Your task to perform on an android device: Add "usb-a to usb-b" to the cart on costco Image 0: 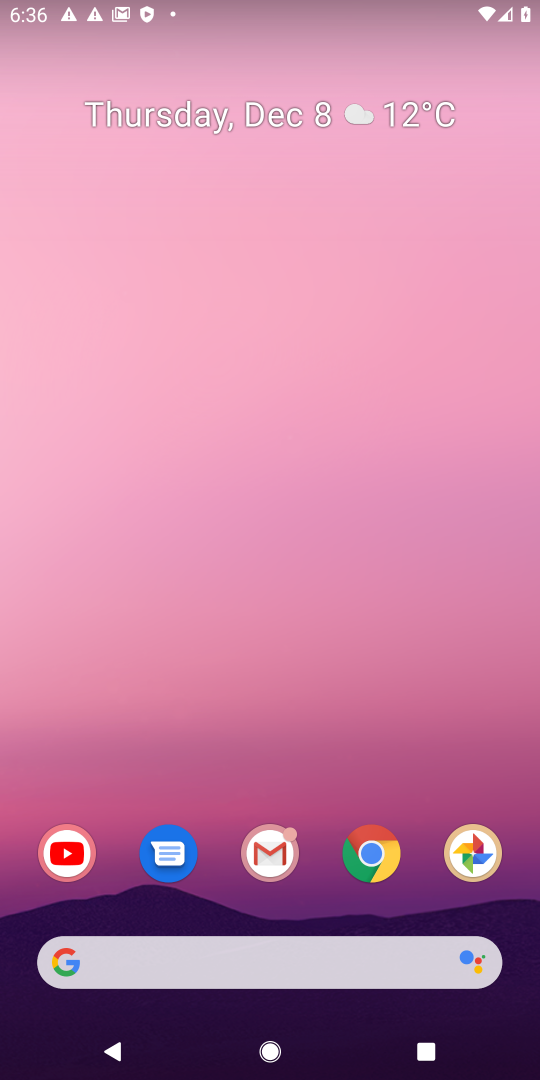
Step 0: click (185, 965)
Your task to perform on an android device: Add "usb-a to usb-b" to the cart on costco Image 1: 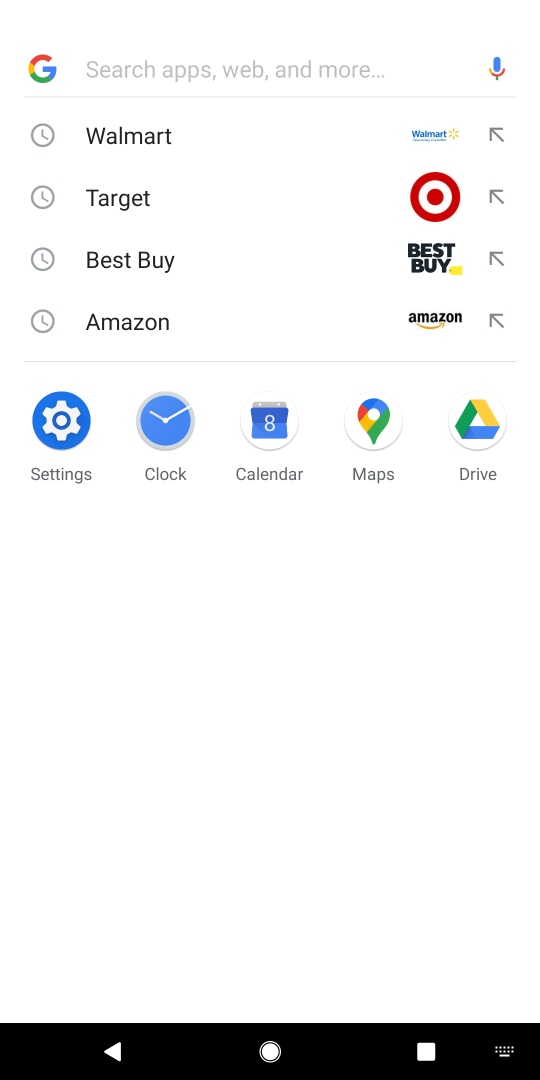
Step 1: click (126, 328)
Your task to perform on an android device: Add "usb-a to usb-b" to the cart on costco Image 2: 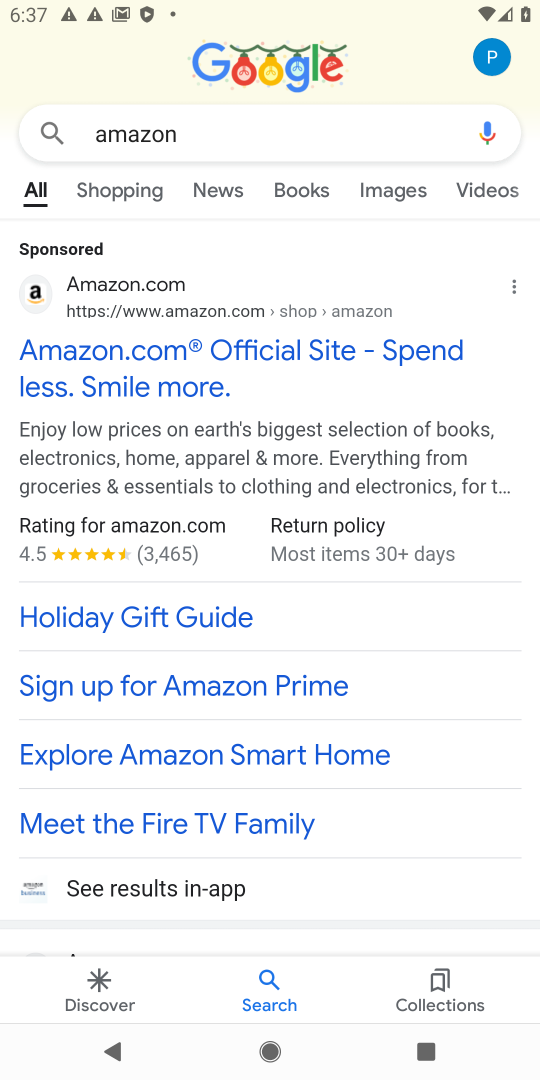
Step 2: click (186, 366)
Your task to perform on an android device: Add "usb-a to usb-b" to the cart on costco Image 3: 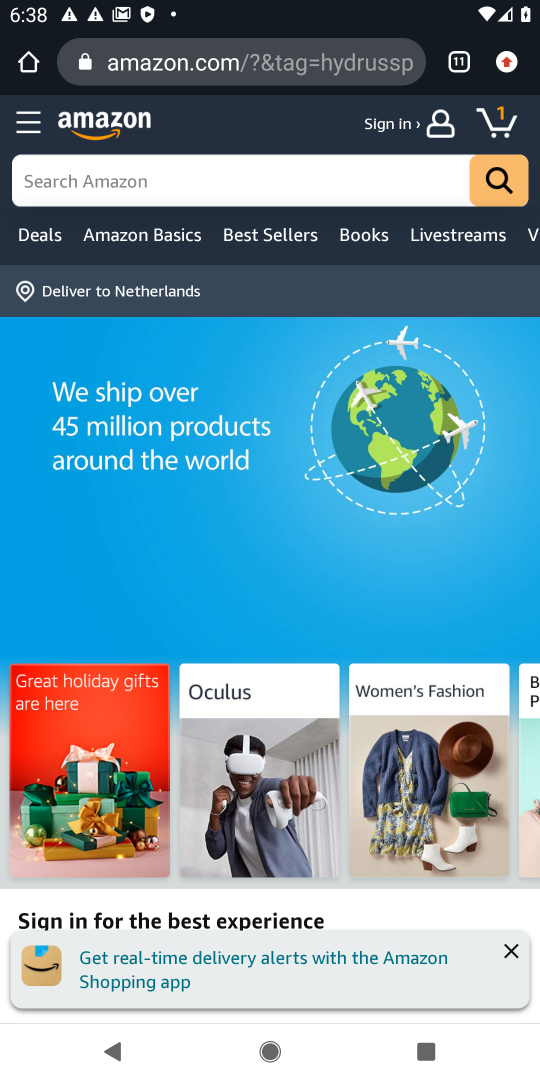
Step 3: click (239, 778)
Your task to perform on an android device: Add "usb-a to usb-b" to the cart on costco Image 4: 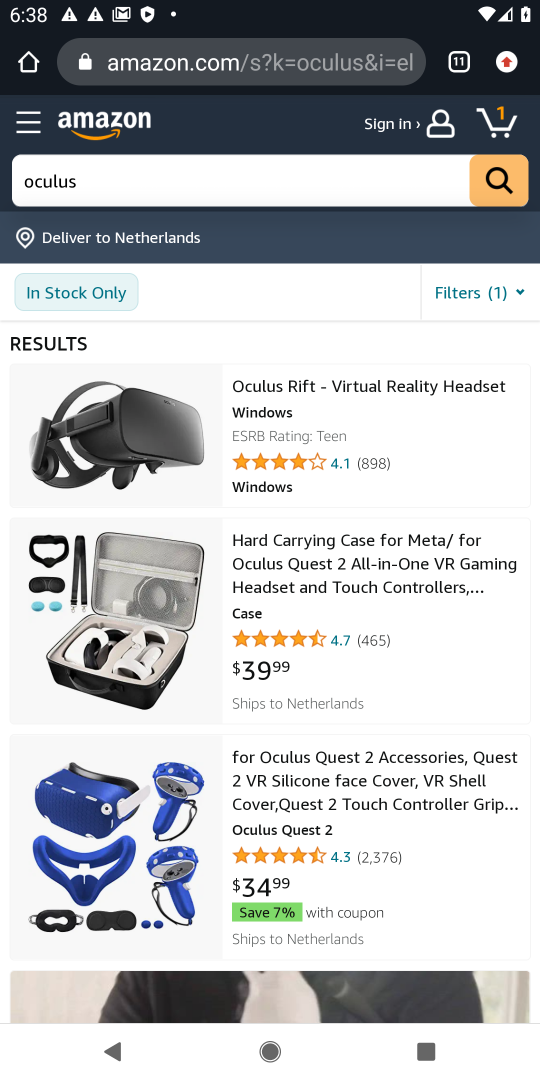
Step 4: task complete